Your task to perform on an android device: turn on data saver in the chrome app Image 0: 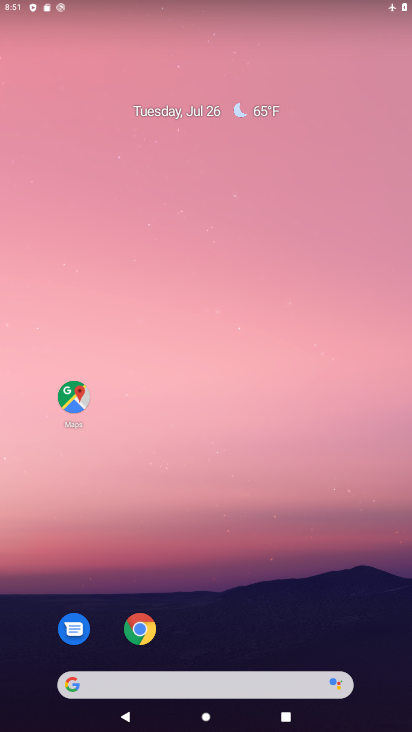
Step 0: drag from (324, 616) to (174, 17)
Your task to perform on an android device: turn on data saver in the chrome app Image 1: 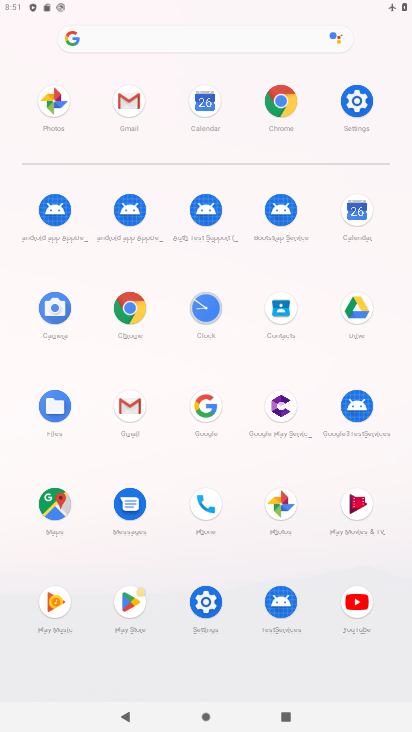
Step 1: click (284, 102)
Your task to perform on an android device: turn on data saver in the chrome app Image 2: 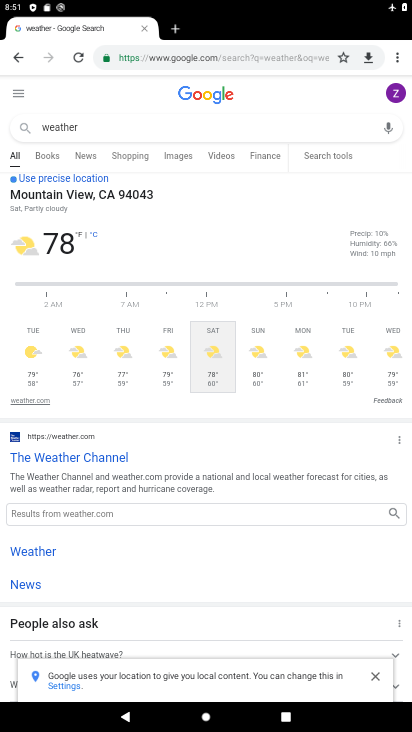
Step 2: drag from (395, 50) to (307, 350)
Your task to perform on an android device: turn on data saver in the chrome app Image 3: 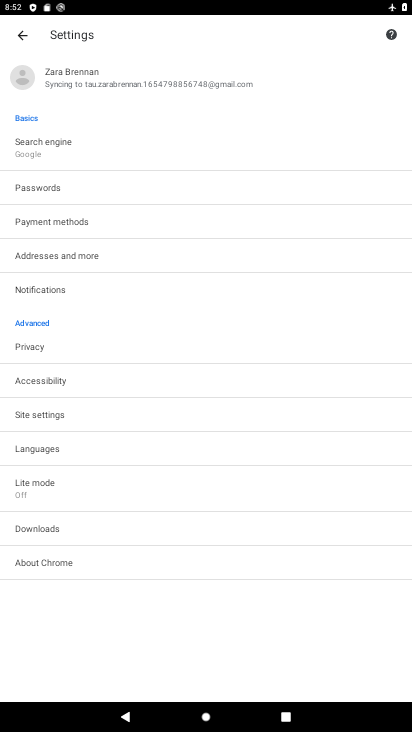
Step 3: click (50, 494)
Your task to perform on an android device: turn on data saver in the chrome app Image 4: 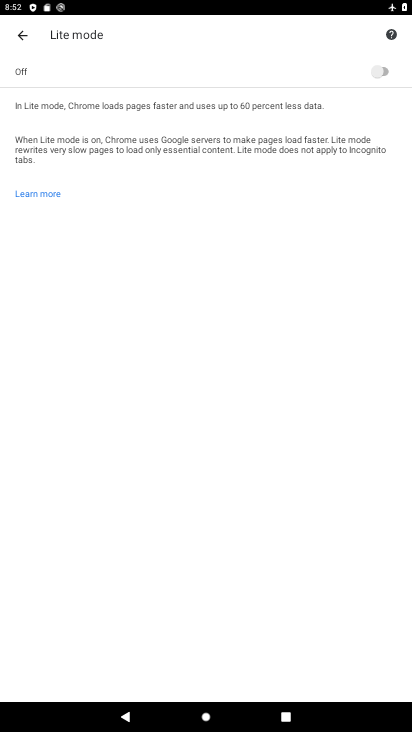
Step 4: click (373, 72)
Your task to perform on an android device: turn on data saver in the chrome app Image 5: 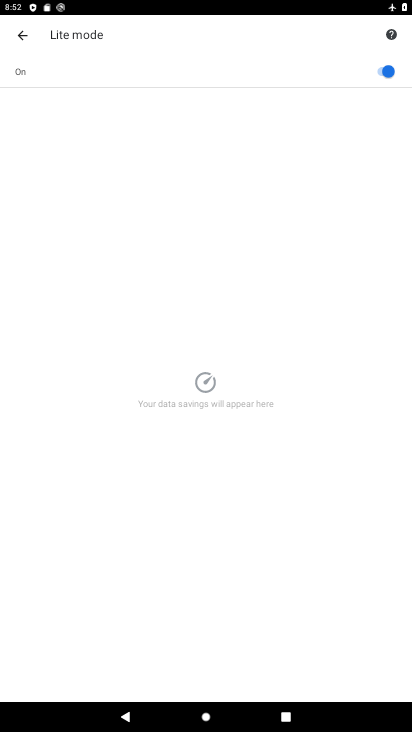
Step 5: task complete